Your task to perform on an android device: Go to privacy settings Image 0: 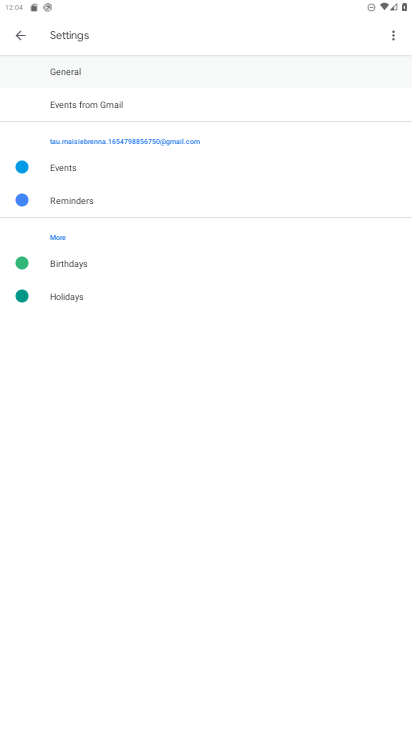
Step 0: press home button
Your task to perform on an android device: Go to privacy settings Image 1: 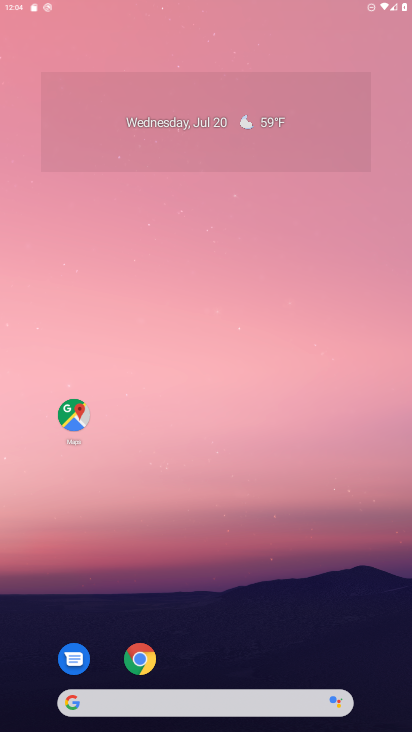
Step 1: drag from (283, 593) to (219, 50)
Your task to perform on an android device: Go to privacy settings Image 2: 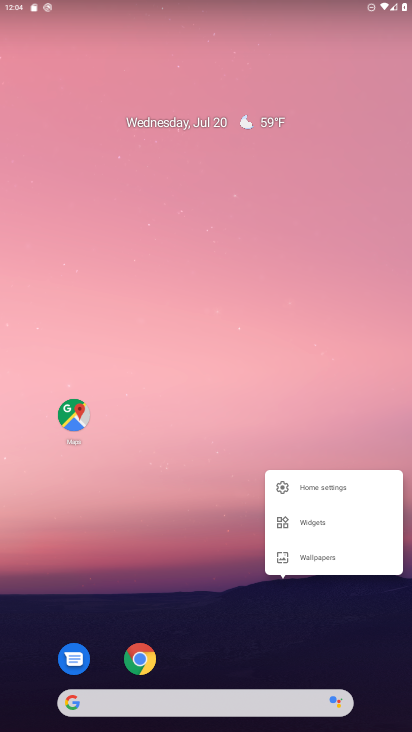
Step 2: click (154, 424)
Your task to perform on an android device: Go to privacy settings Image 3: 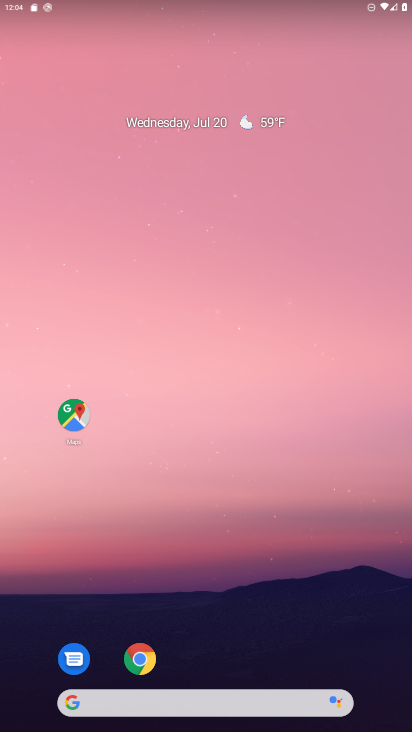
Step 3: drag from (222, 351) to (241, 32)
Your task to perform on an android device: Go to privacy settings Image 4: 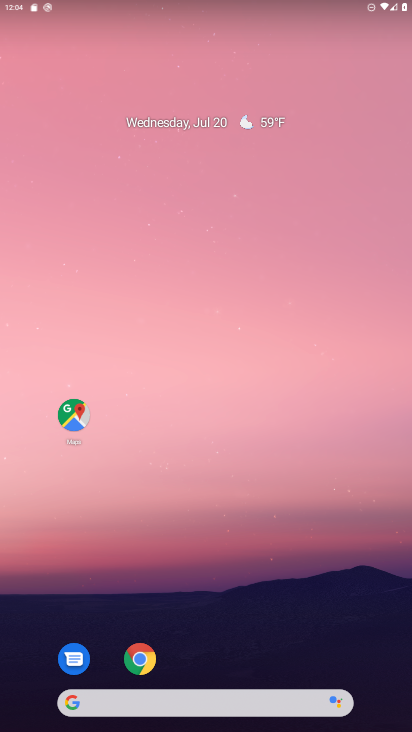
Step 4: drag from (301, 646) to (221, 55)
Your task to perform on an android device: Go to privacy settings Image 5: 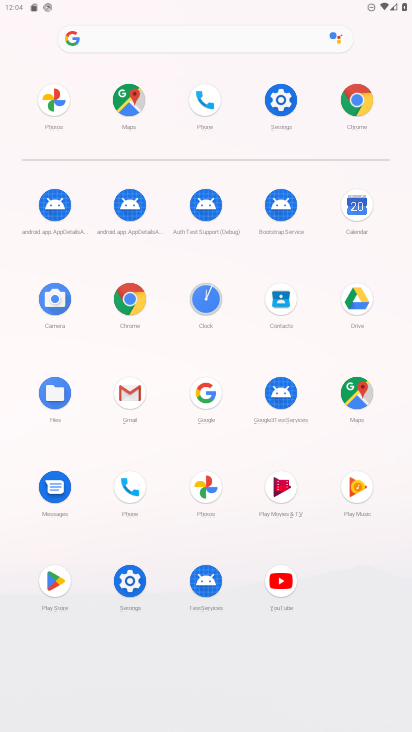
Step 5: click (276, 114)
Your task to perform on an android device: Go to privacy settings Image 6: 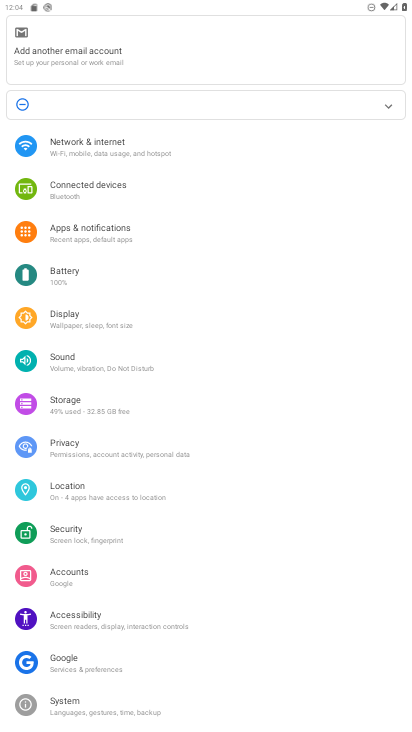
Step 6: drag from (165, 140) to (116, 215)
Your task to perform on an android device: Go to privacy settings Image 7: 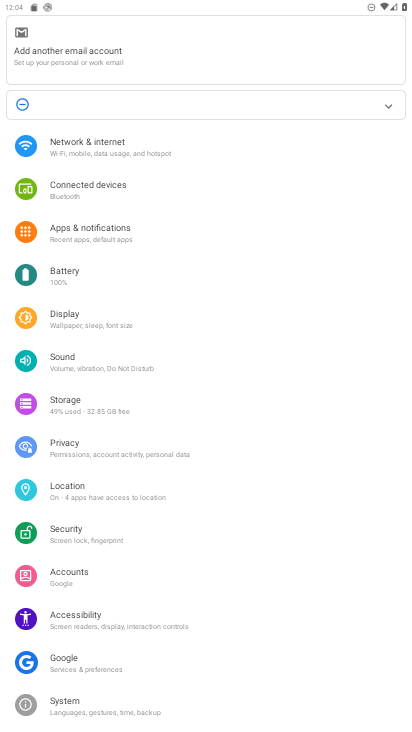
Step 7: click (106, 449)
Your task to perform on an android device: Go to privacy settings Image 8: 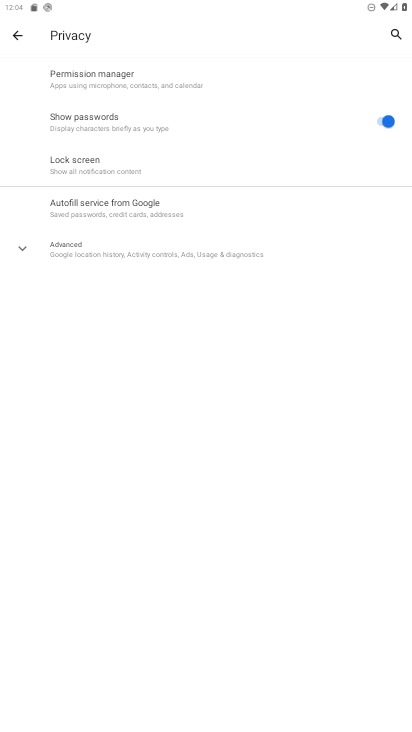
Step 8: task complete